Your task to perform on an android device: Go to Yahoo.com Image 0: 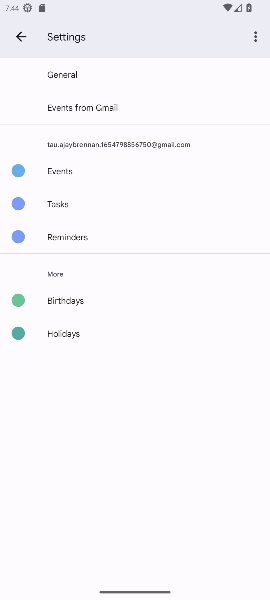
Step 0: press home button
Your task to perform on an android device: Go to Yahoo.com Image 1: 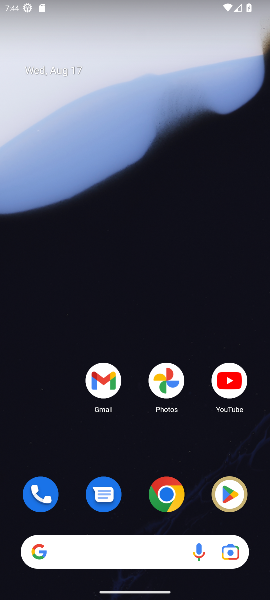
Step 1: drag from (98, 503) to (131, 122)
Your task to perform on an android device: Go to Yahoo.com Image 2: 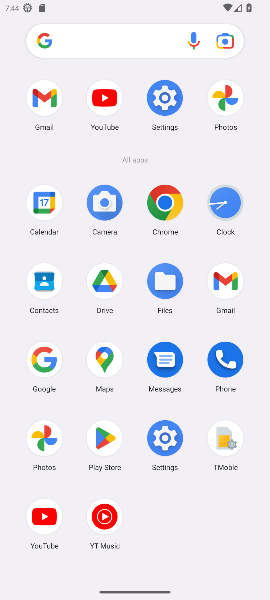
Step 2: click (162, 204)
Your task to perform on an android device: Go to Yahoo.com Image 3: 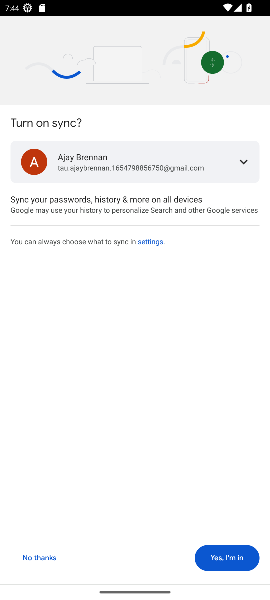
Step 3: click (221, 560)
Your task to perform on an android device: Go to Yahoo.com Image 4: 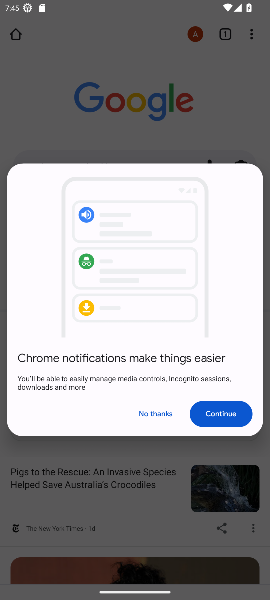
Step 4: click (156, 420)
Your task to perform on an android device: Go to Yahoo.com Image 5: 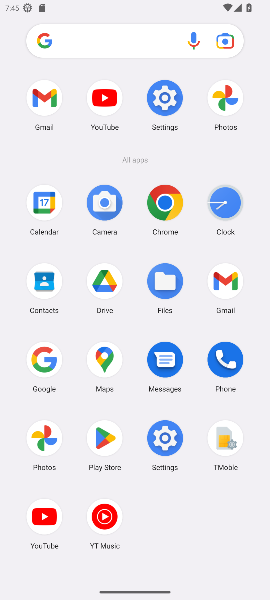
Step 5: click (159, 206)
Your task to perform on an android device: Go to Yahoo.com Image 6: 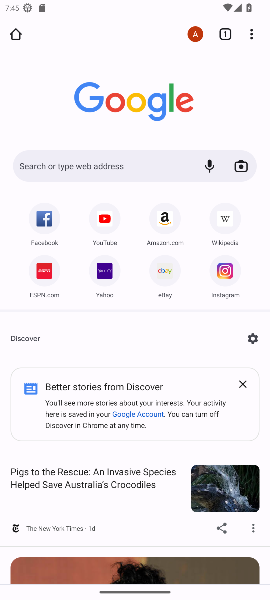
Step 6: click (124, 159)
Your task to perform on an android device: Go to Yahoo.com Image 7: 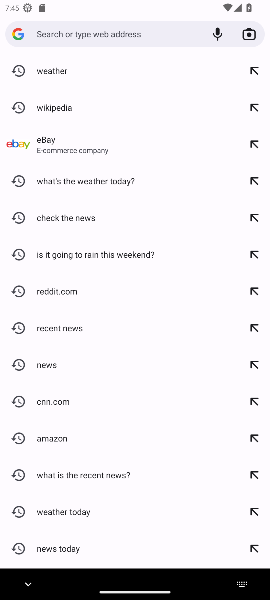
Step 7: type "Yahoo.com"
Your task to perform on an android device: Go to Yahoo.com Image 8: 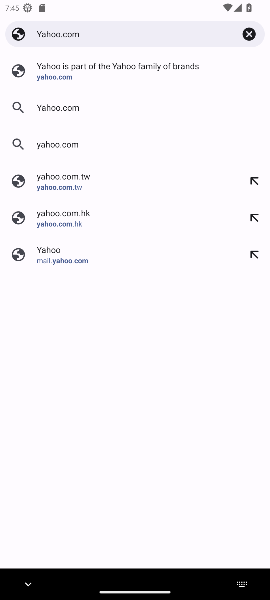
Step 8: click (86, 75)
Your task to perform on an android device: Go to Yahoo.com Image 9: 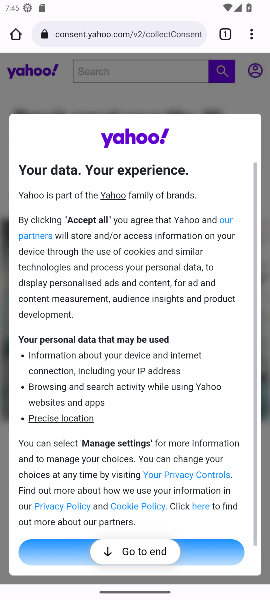
Step 9: task complete